Your task to perform on an android device: Open the calendar and show me this week's events? Image 0: 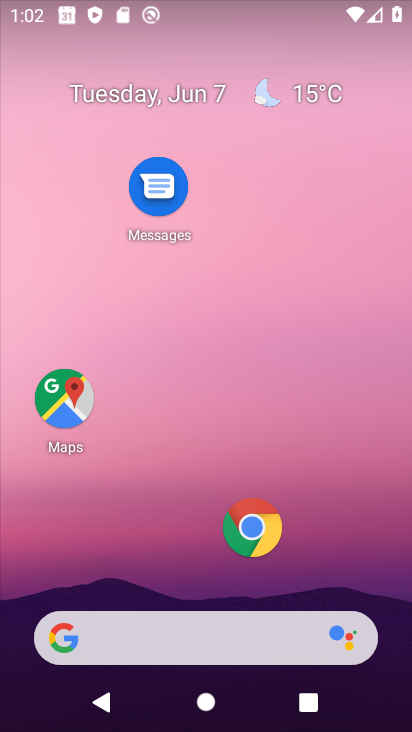
Step 0: drag from (205, 618) to (243, 336)
Your task to perform on an android device: Open the calendar and show me this week's events? Image 1: 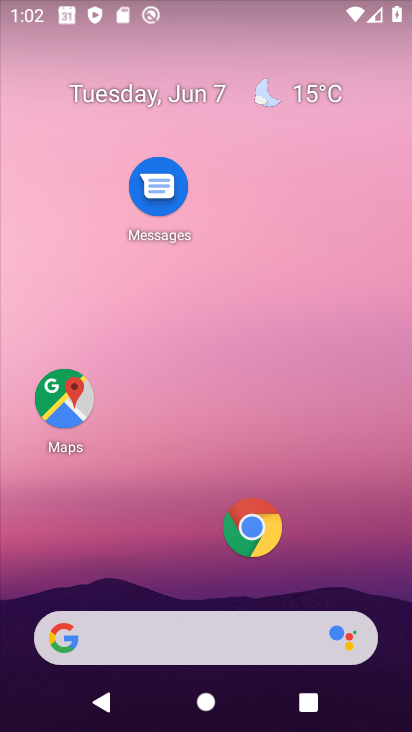
Step 1: drag from (236, 618) to (253, 202)
Your task to perform on an android device: Open the calendar and show me this week's events? Image 2: 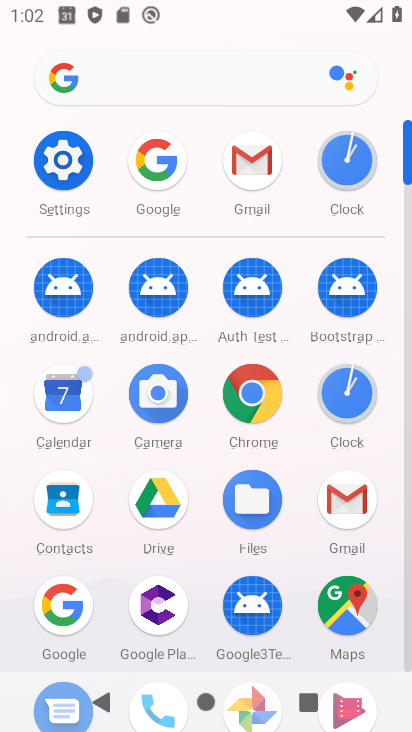
Step 2: click (54, 401)
Your task to perform on an android device: Open the calendar and show me this week's events? Image 3: 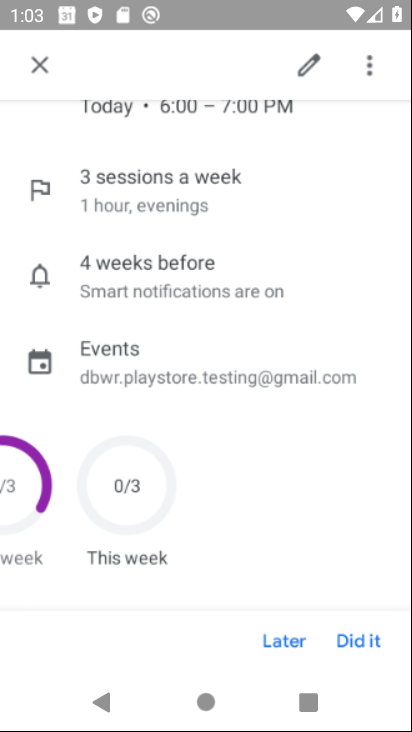
Step 3: click (41, 59)
Your task to perform on an android device: Open the calendar and show me this week's events? Image 4: 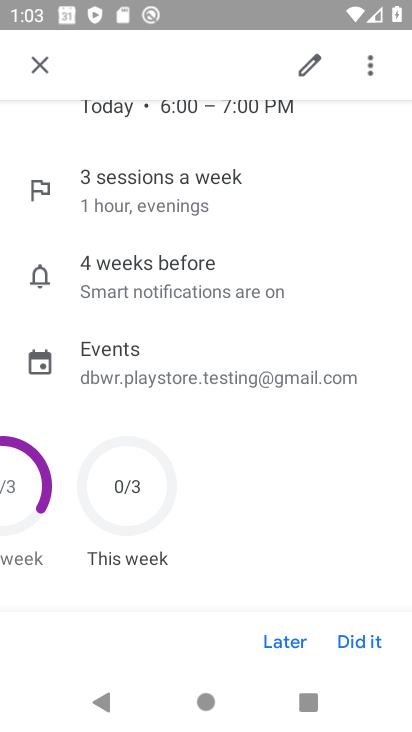
Step 4: click (37, 65)
Your task to perform on an android device: Open the calendar and show me this week's events? Image 5: 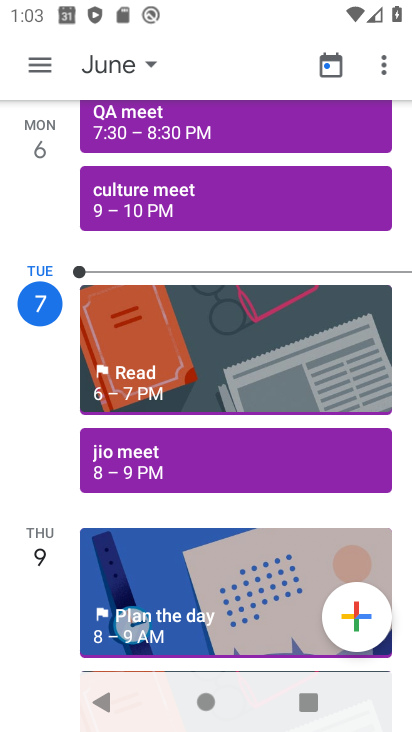
Step 5: click (126, 68)
Your task to perform on an android device: Open the calendar and show me this week's events? Image 6: 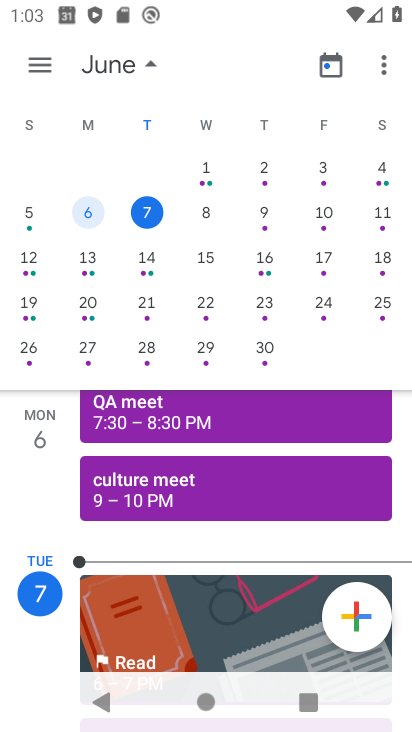
Step 6: click (383, 217)
Your task to perform on an android device: Open the calendar and show me this week's events? Image 7: 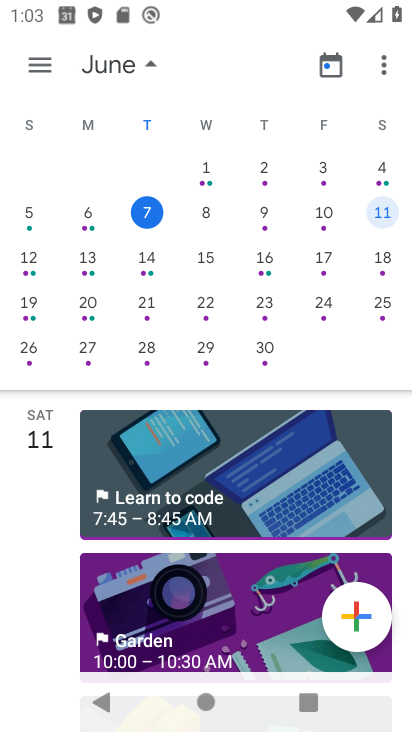
Step 7: task complete